Your task to perform on an android device: open app "Google Keep" (install if not already installed) Image 0: 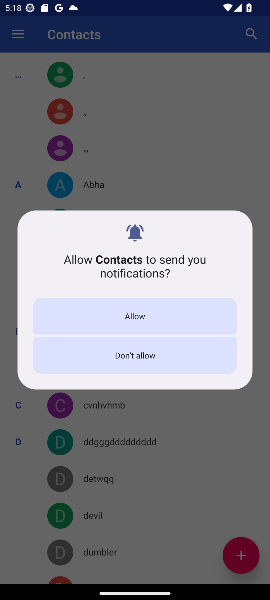
Step 0: press home button
Your task to perform on an android device: open app "Google Keep" (install if not already installed) Image 1: 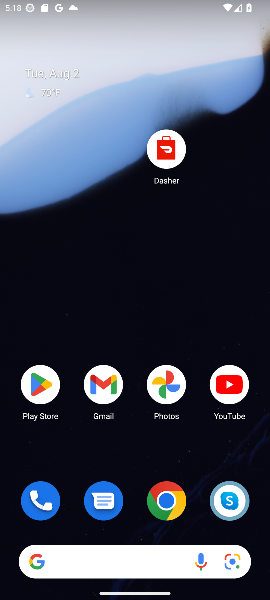
Step 1: click (28, 389)
Your task to perform on an android device: open app "Google Keep" (install if not already installed) Image 2: 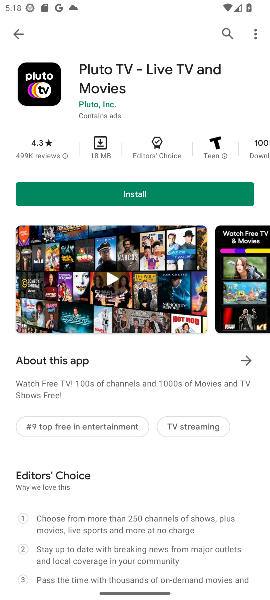
Step 2: click (228, 33)
Your task to perform on an android device: open app "Google Keep" (install if not already installed) Image 3: 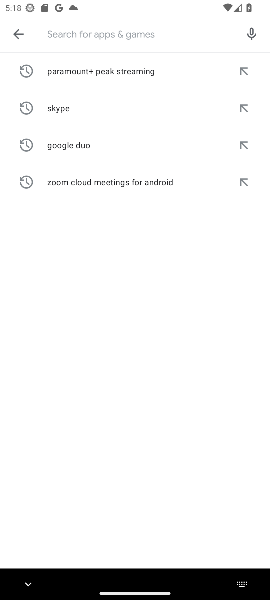
Step 3: type "Google Keep"
Your task to perform on an android device: open app "Google Keep" (install if not already installed) Image 4: 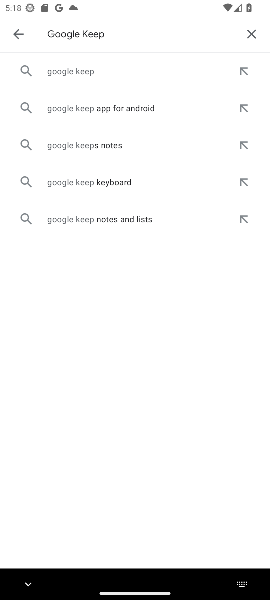
Step 4: click (54, 74)
Your task to perform on an android device: open app "Google Keep" (install if not already installed) Image 5: 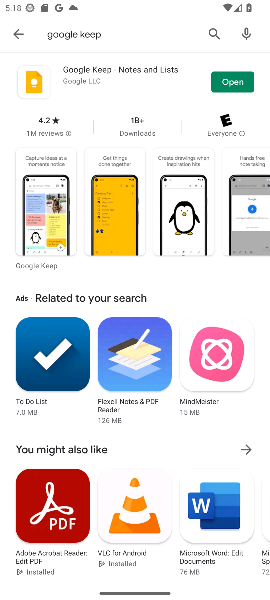
Step 5: click (243, 85)
Your task to perform on an android device: open app "Google Keep" (install if not already installed) Image 6: 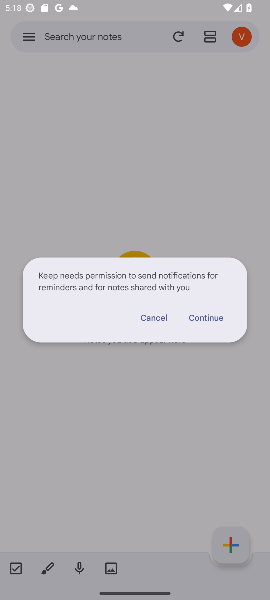
Step 6: task complete